Your task to perform on an android device: turn on notifications settings in the gmail app Image 0: 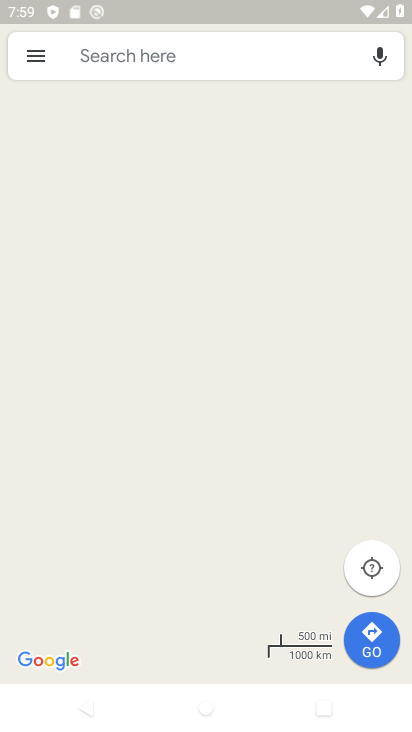
Step 0: press home button
Your task to perform on an android device: turn on notifications settings in the gmail app Image 1: 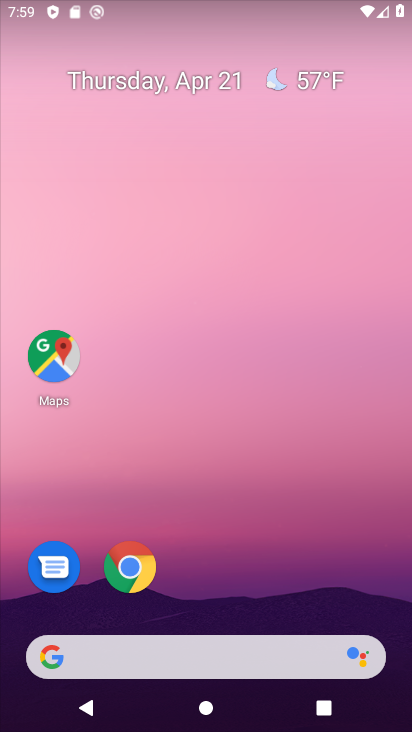
Step 1: drag from (230, 599) to (272, 80)
Your task to perform on an android device: turn on notifications settings in the gmail app Image 2: 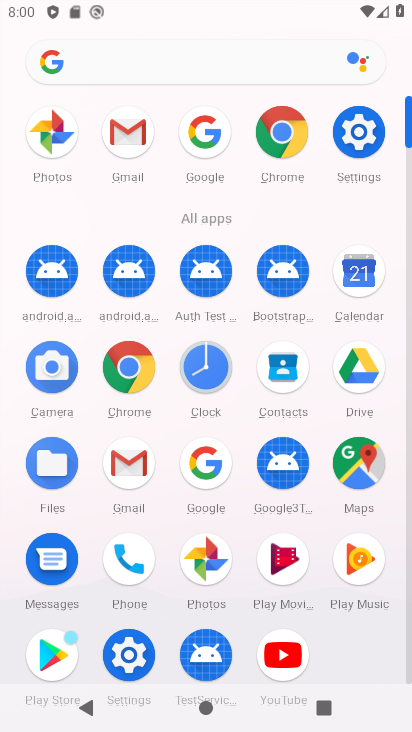
Step 2: click (136, 131)
Your task to perform on an android device: turn on notifications settings in the gmail app Image 3: 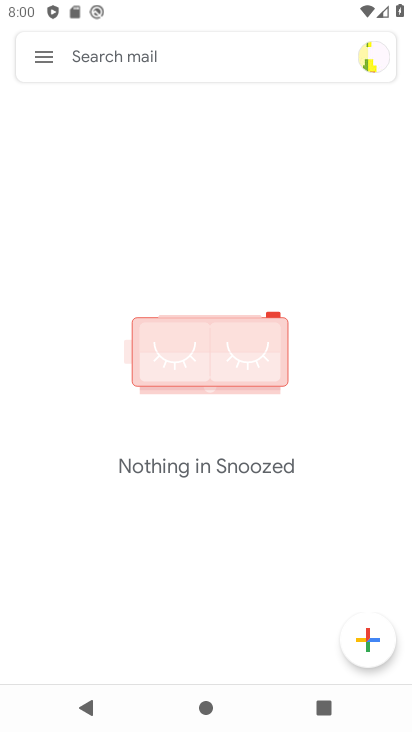
Step 3: click (53, 50)
Your task to perform on an android device: turn on notifications settings in the gmail app Image 4: 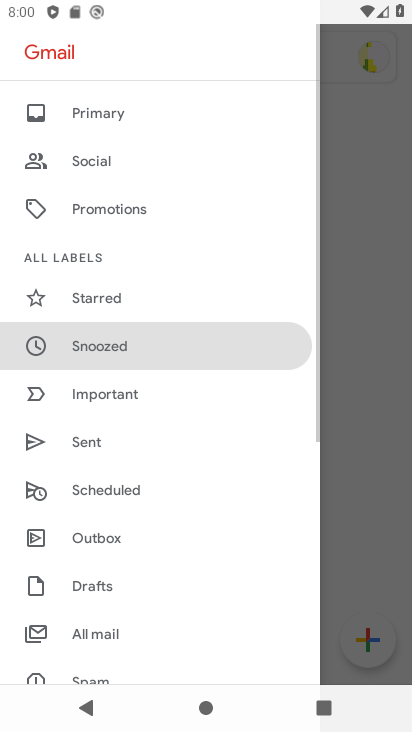
Step 4: drag from (137, 634) to (207, 289)
Your task to perform on an android device: turn on notifications settings in the gmail app Image 5: 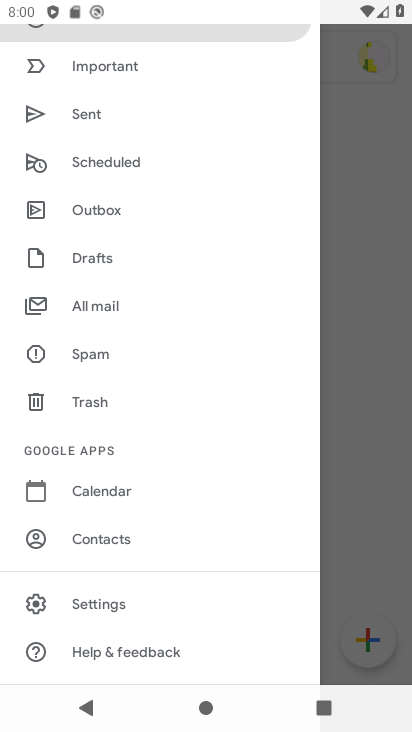
Step 5: click (100, 605)
Your task to perform on an android device: turn on notifications settings in the gmail app Image 6: 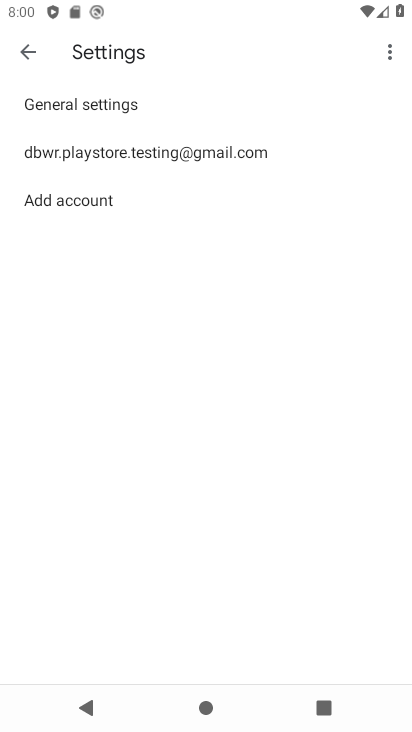
Step 6: click (138, 160)
Your task to perform on an android device: turn on notifications settings in the gmail app Image 7: 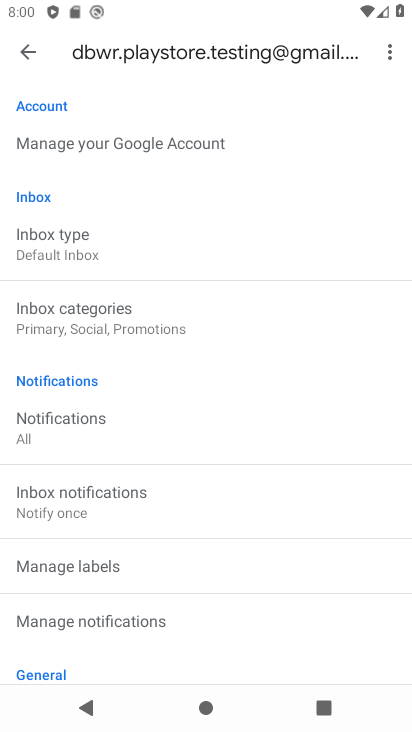
Step 7: click (151, 607)
Your task to perform on an android device: turn on notifications settings in the gmail app Image 8: 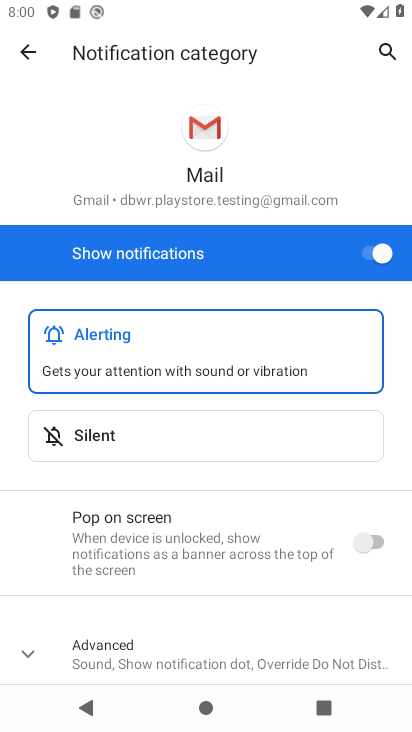
Step 8: task complete